Your task to perform on an android device: Open Yahoo.com Image 0: 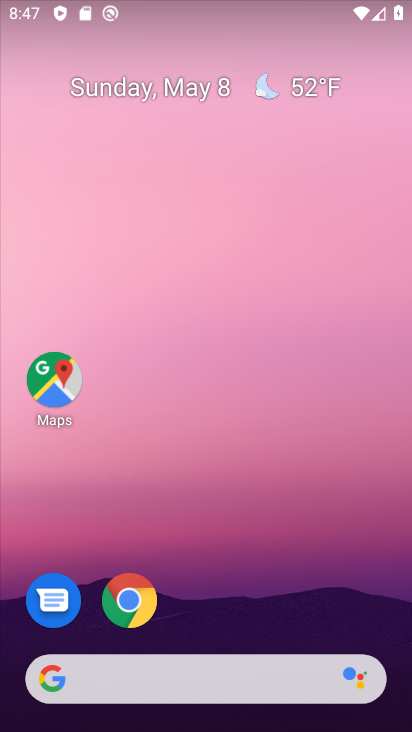
Step 0: click (147, 597)
Your task to perform on an android device: Open Yahoo.com Image 1: 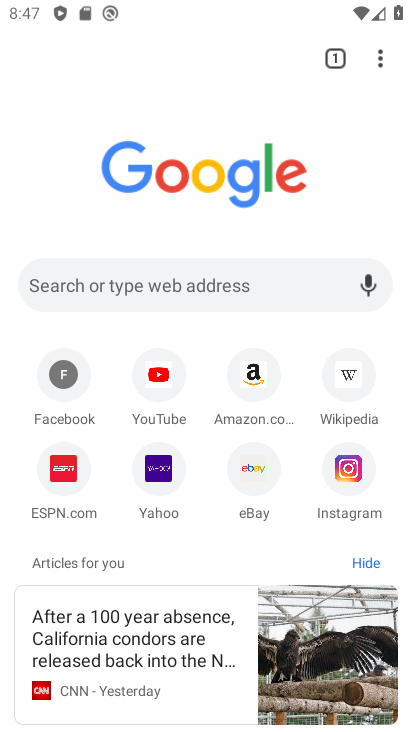
Step 1: click (150, 484)
Your task to perform on an android device: Open Yahoo.com Image 2: 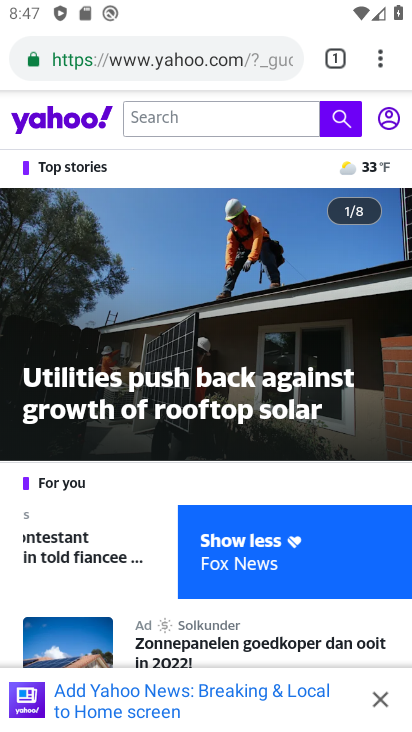
Step 2: task complete